Your task to perform on an android device: Open Maps and search for coffee Image 0: 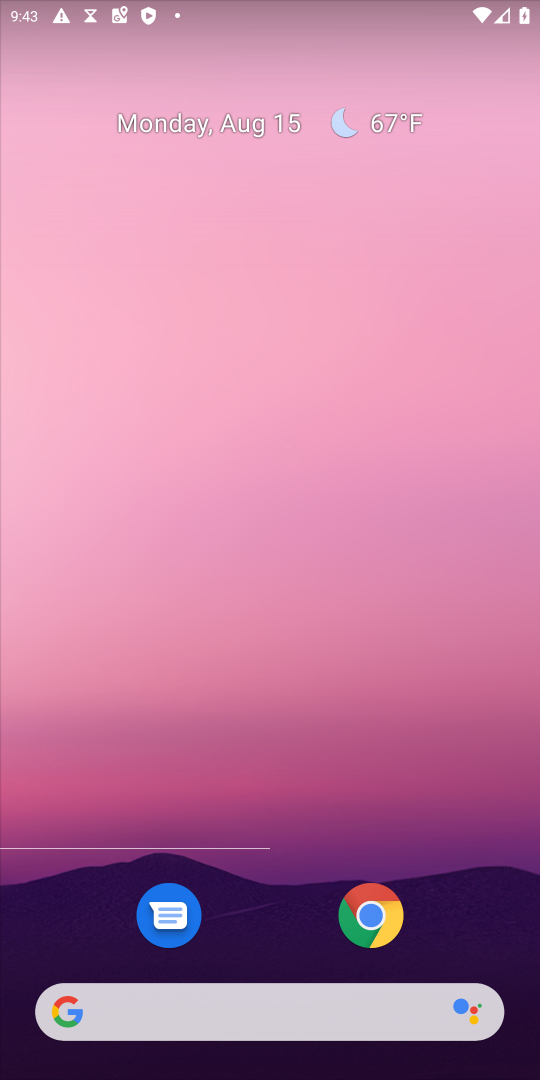
Step 0: drag from (266, 929) to (245, 222)
Your task to perform on an android device: Open Maps and search for coffee Image 1: 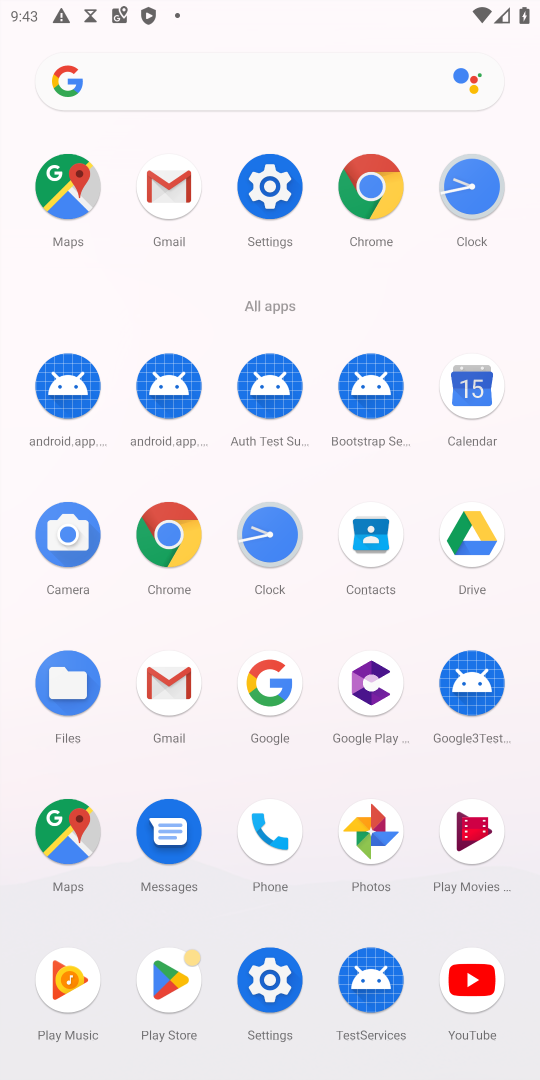
Step 1: click (66, 197)
Your task to perform on an android device: Open Maps and search for coffee Image 2: 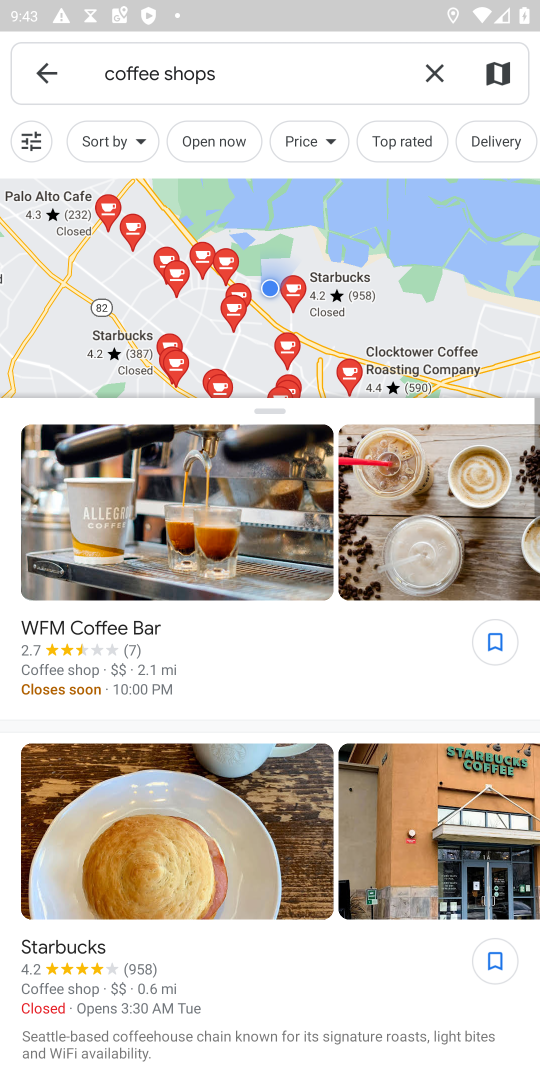
Step 2: click (53, 71)
Your task to perform on an android device: Open Maps and search for coffee Image 3: 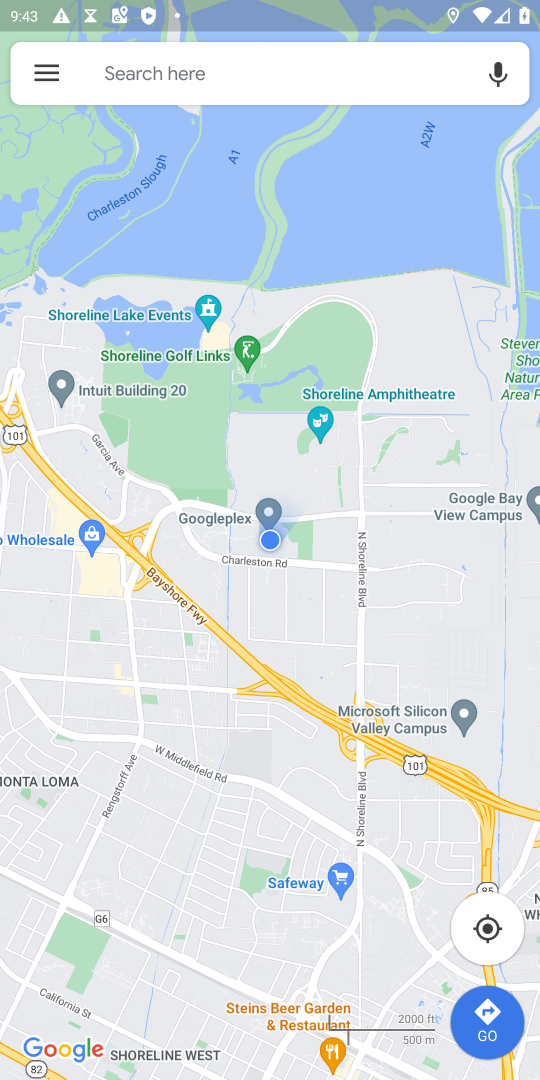
Step 3: click (278, 75)
Your task to perform on an android device: Open Maps and search for coffee Image 4: 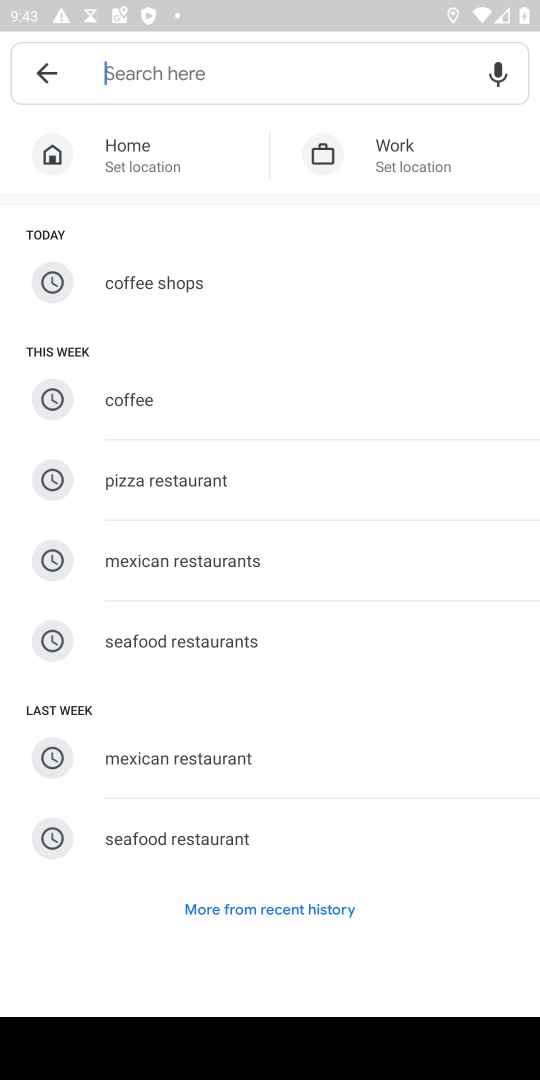
Step 4: click (115, 396)
Your task to perform on an android device: Open Maps and search for coffee Image 5: 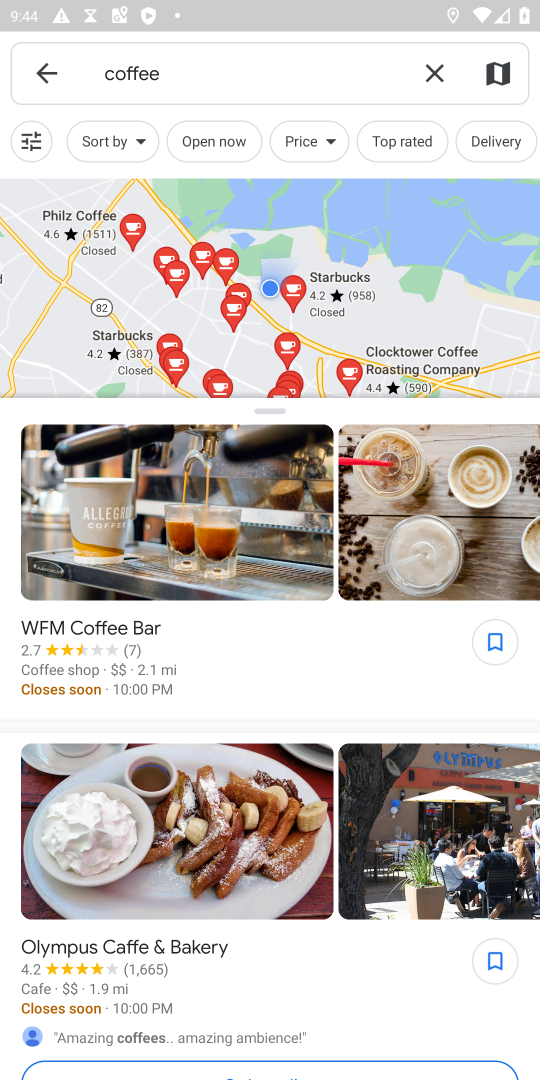
Step 5: task complete